Your task to perform on an android device: Install the Facebook app Image 0: 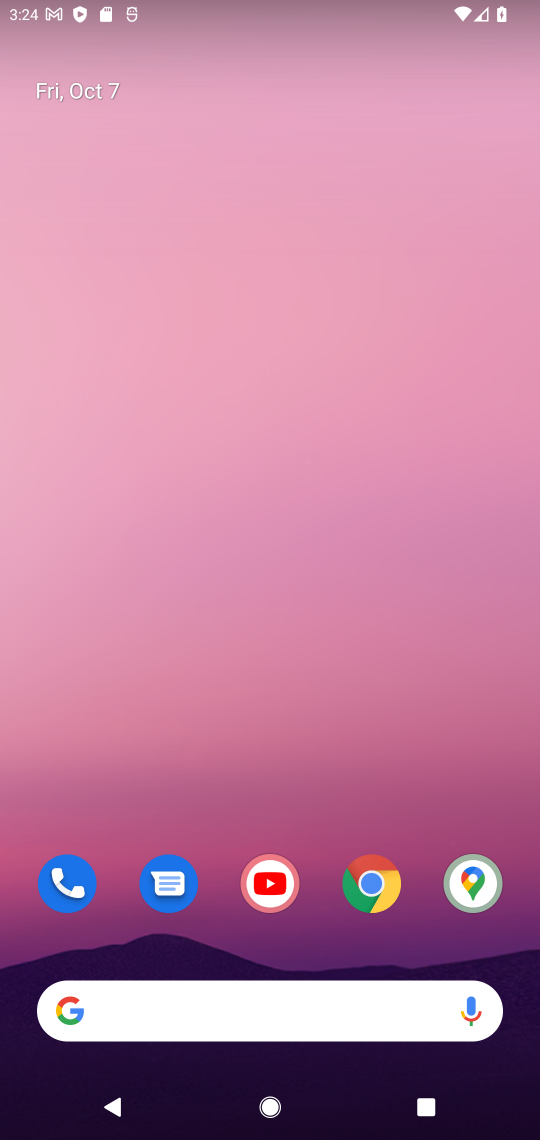
Step 0: drag from (305, 1019) to (299, 602)
Your task to perform on an android device: Install the Facebook app Image 1: 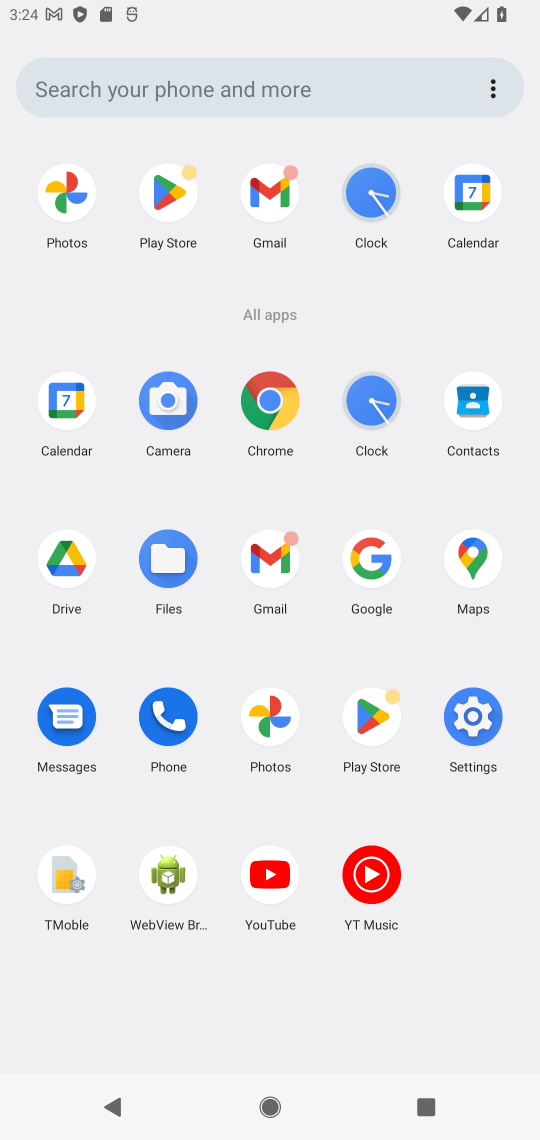
Step 1: click (370, 699)
Your task to perform on an android device: Install the Facebook app Image 2: 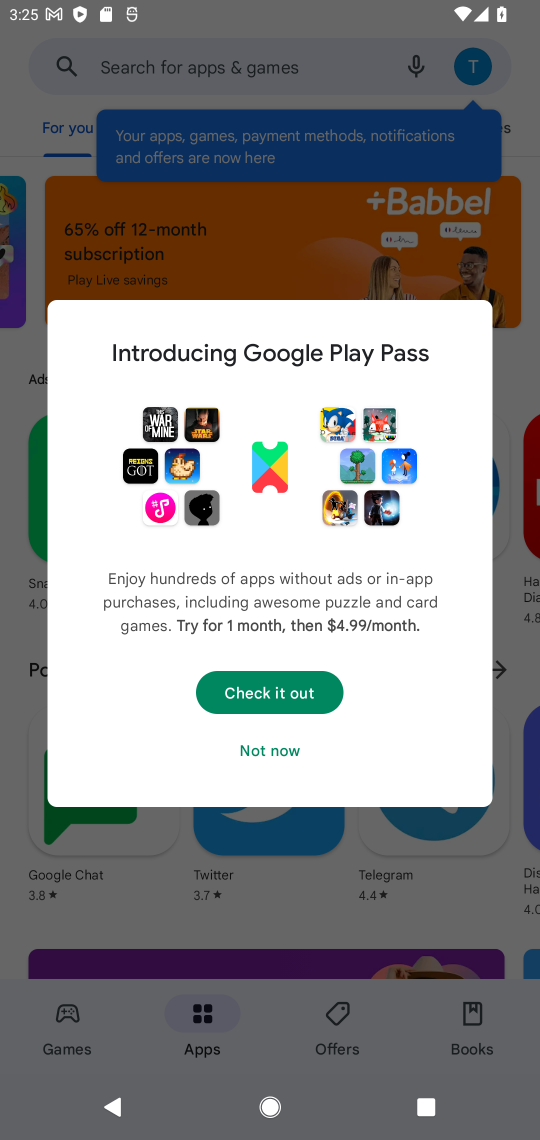
Step 2: click (259, 759)
Your task to perform on an android device: Install the Facebook app Image 3: 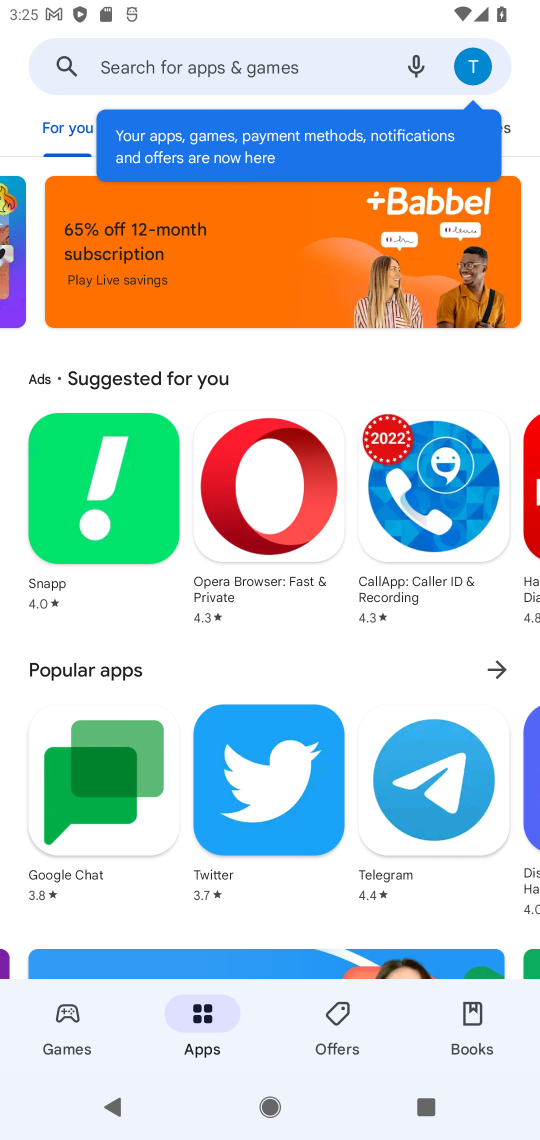
Step 3: click (203, 67)
Your task to perform on an android device: Install the Facebook app Image 4: 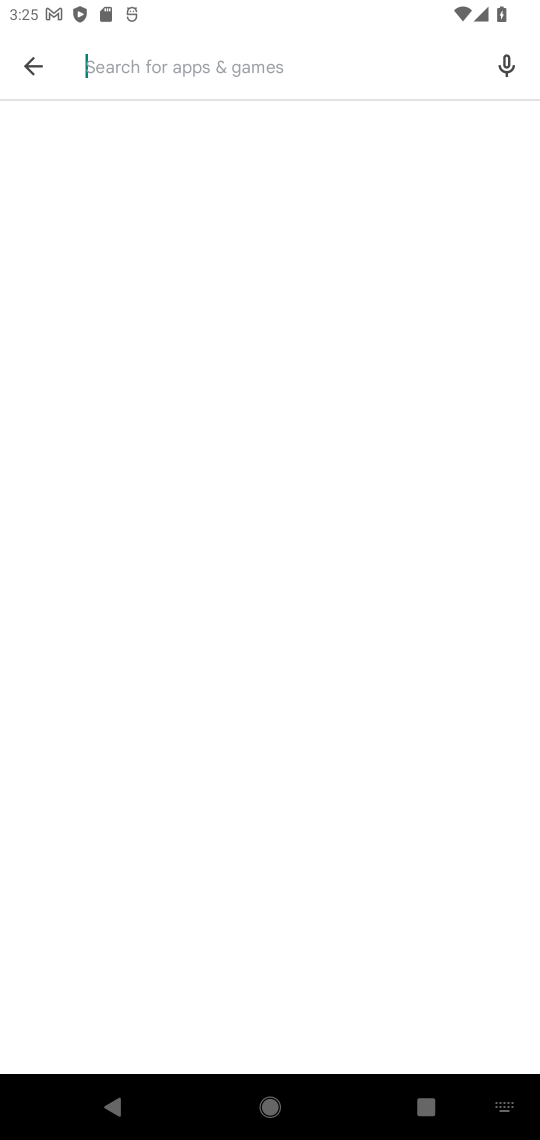
Step 4: type "facebook app"
Your task to perform on an android device: Install the Facebook app Image 5: 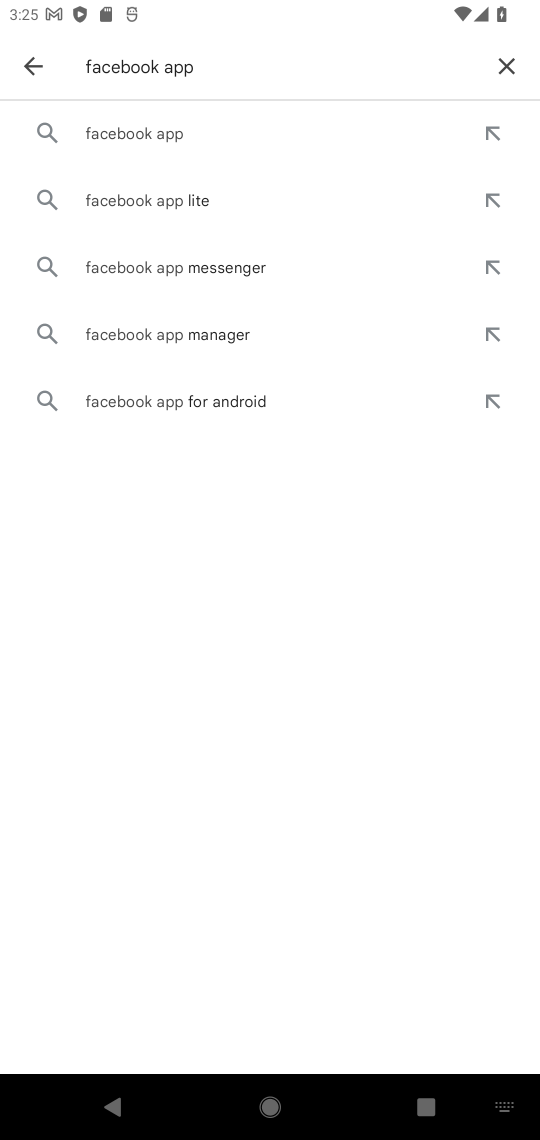
Step 5: click (159, 140)
Your task to perform on an android device: Install the Facebook app Image 6: 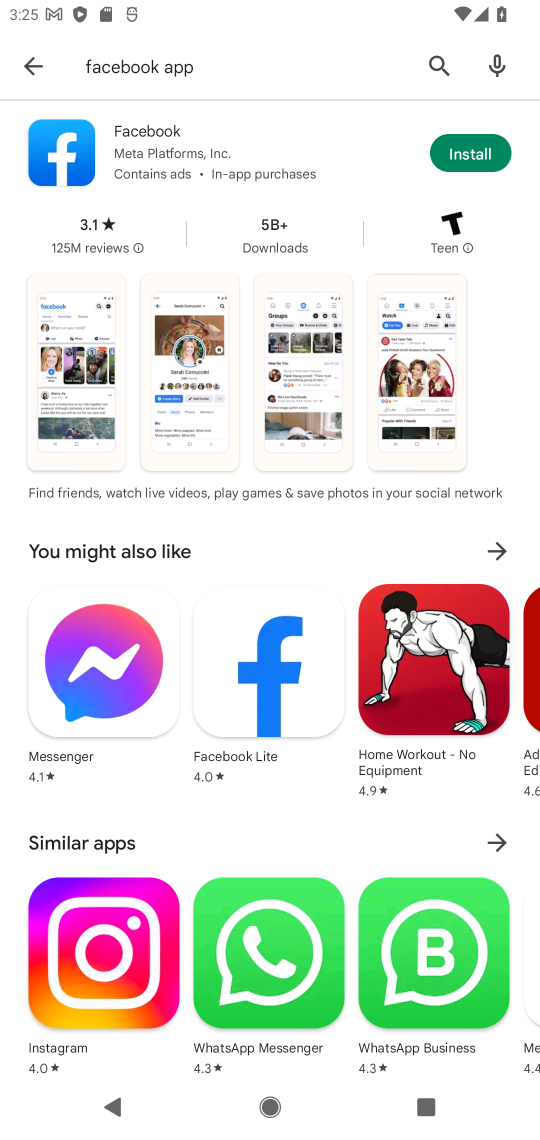
Step 6: click (472, 153)
Your task to perform on an android device: Install the Facebook app Image 7: 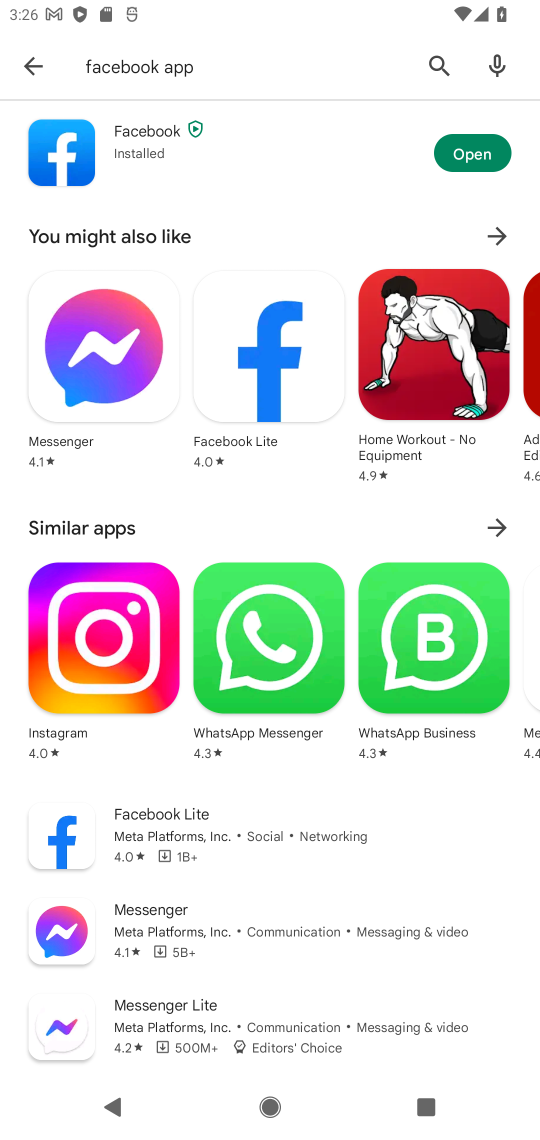
Step 7: task complete